Your task to perform on an android device: Go to Google Image 0: 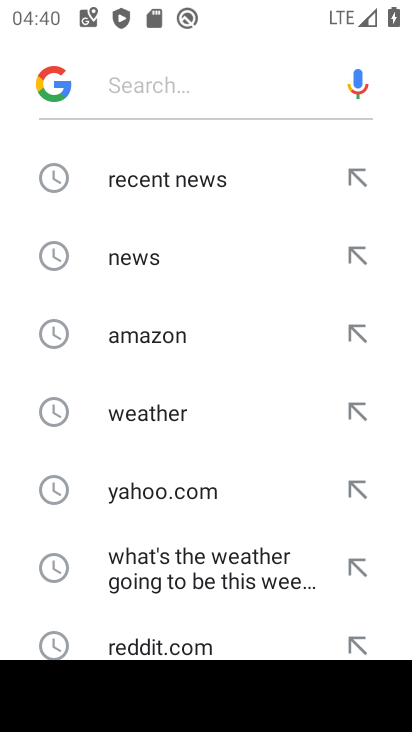
Step 0: press back button
Your task to perform on an android device: Go to Google Image 1: 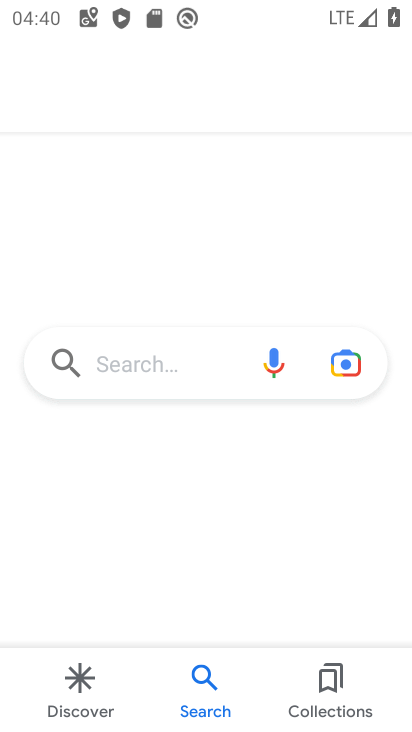
Step 1: task complete